Your task to perform on an android device: stop showing notifications on the lock screen Image 0: 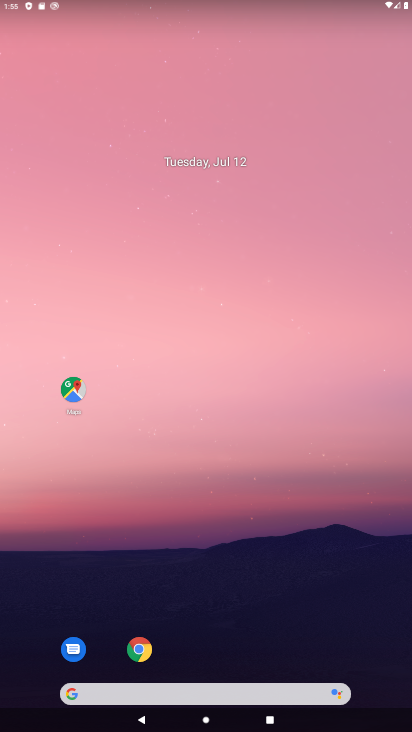
Step 0: drag from (247, 609) to (263, 243)
Your task to perform on an android device: stop showing notifications on the lock screen Image 1: 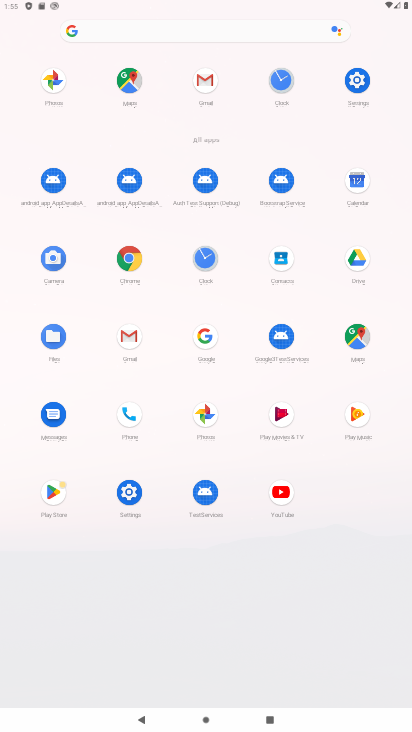
Step 1: click (356, 82)
Your task to perform on an android device: stop showing notifications on the lock screen Image 2: 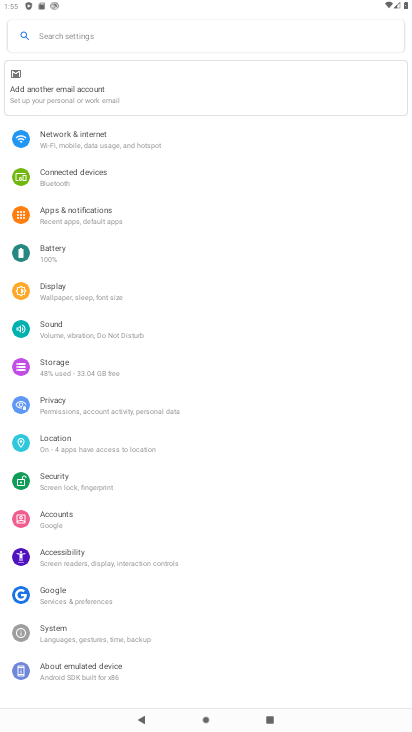
Step 2: click (72, 212)
Your task to perform on an android device: stop showing notifications on the lock screen Image 3: 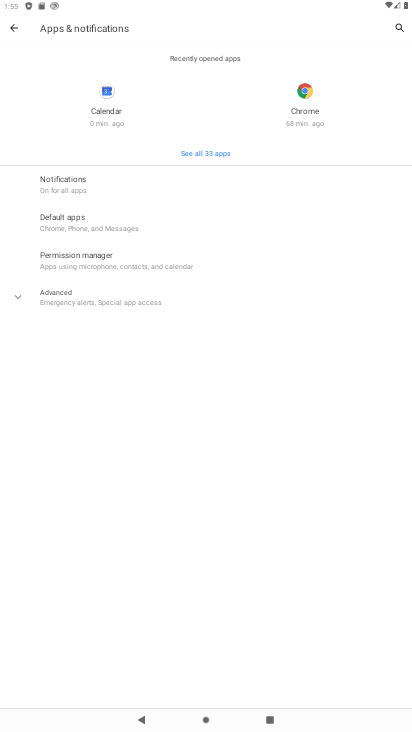
Step 3: click (76, 188)
Your task to perform on an android device: stop showing notifications on the lock screen Image 4: 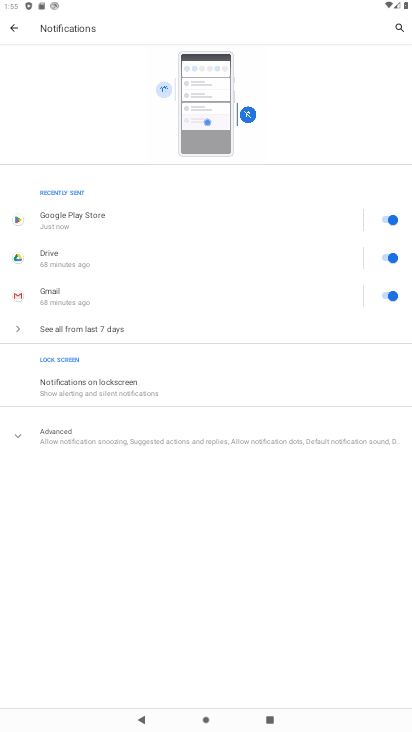
Step 4: click (78, 388)
Your task to perform on an android device: stop showing notifications on the lock screen Image 5: 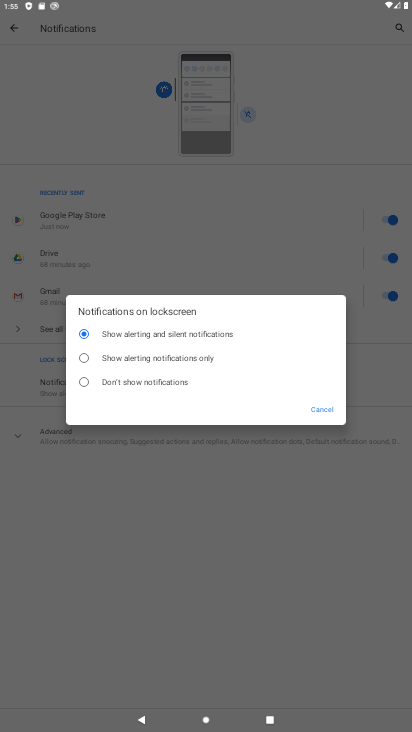
Step 5: click (81, 381)
Your task to perform on an android device: stop showing notifications on the lock screen Image 6: 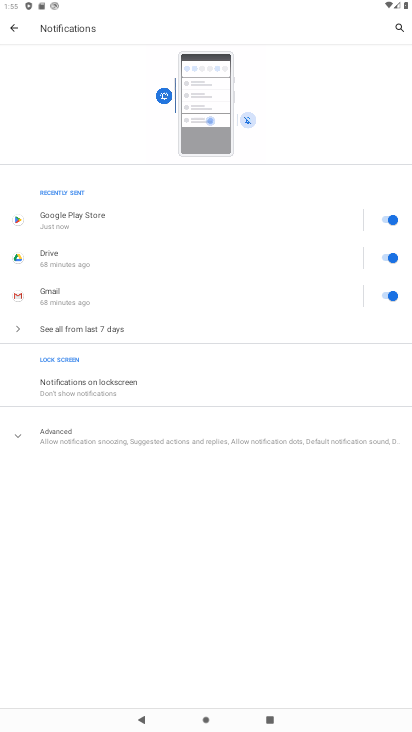
Step 6: task complete